Your task to perform on an android device: Clear the shopping cart on walmart. Search for macbook on walmart, select the first entry, add it to the cart, then select checkout. Image 0: 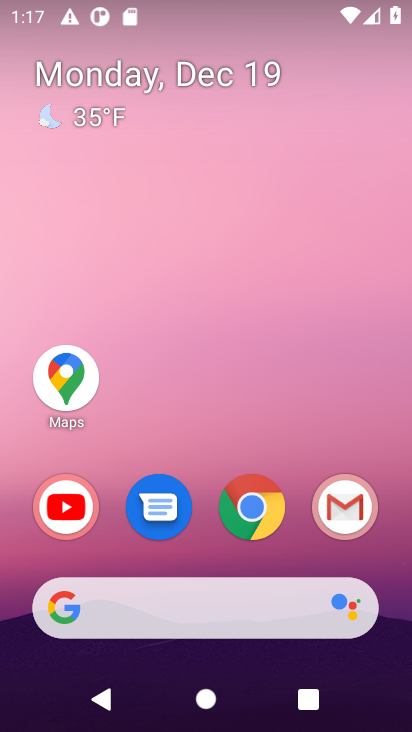
Step 0: click (242, 507)
Your task to perform on an android device: Clear the shopping cart on walmart. Search for macbook on walmart, select the first entry, add it to the cart, then select checkout. Image 1: 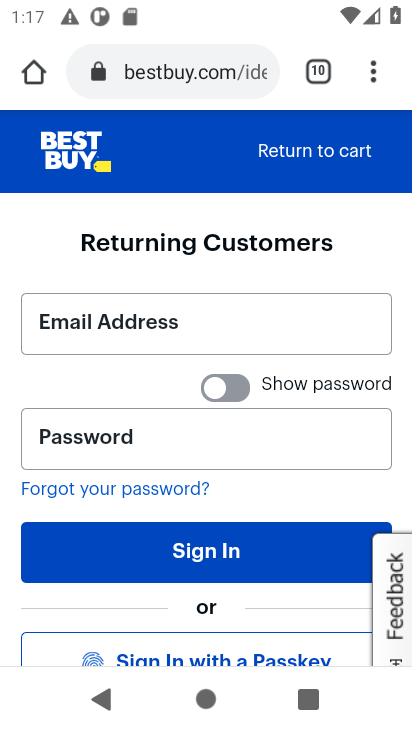
Step 1: click (172, 76)
Your task to perform on an android device: Clear the shopping cart on walmart. Search for macbook on walmart, select the first entry, add it to the cart, then select checkout. Image 2: 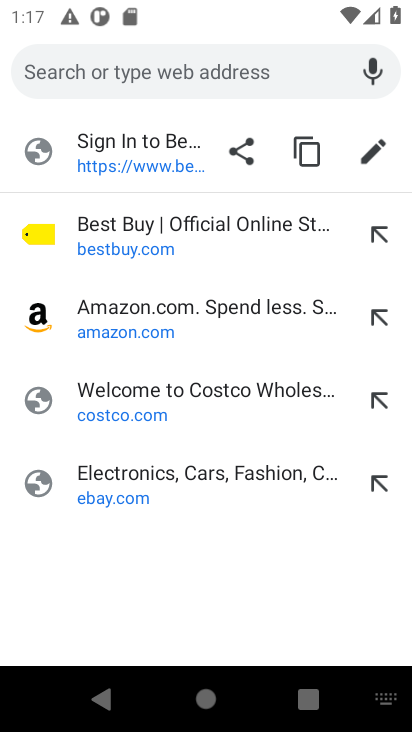
Step 2: type "walmart.com"
Your task to perform on an android device: Clear the shopping cart on walmart. Search for macbook on walmart, select the first entry, add it to the cart, then select checkout. Image 3: 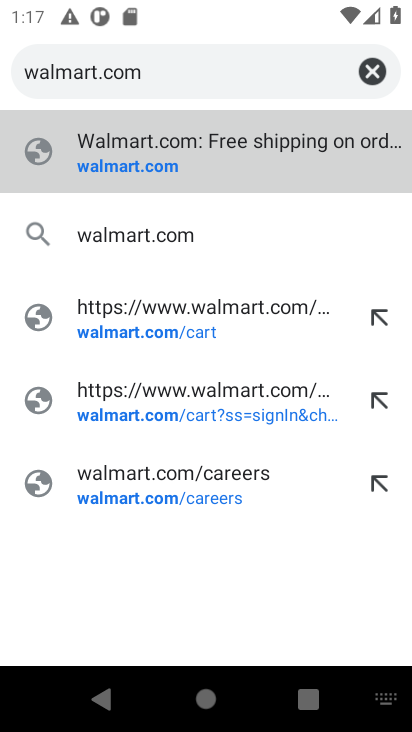
Step 3: click (103, 174)
Your task to perform on an android device: Clear the shopping cart on walmart. Search for macbook on walmart, select the first entry, add it to the cart, then select checkout. Image 4: 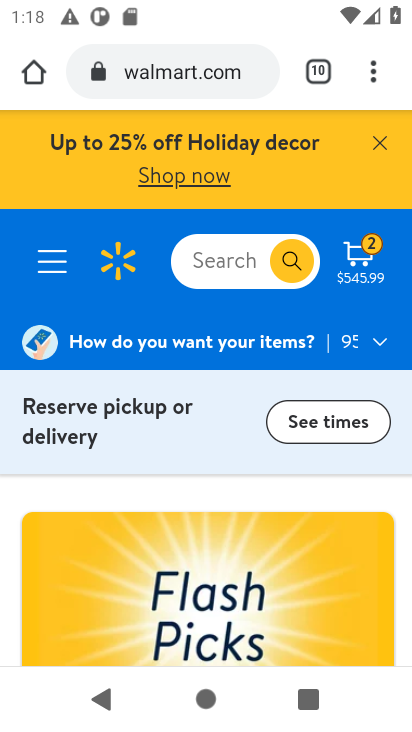
Step 4: click (360, 257)
Your task to perform on an android device: Clear the shopping cart on walmart. Search for macbook on walmart, select the first entry, add it to the cart, then select checkout. Image 5: 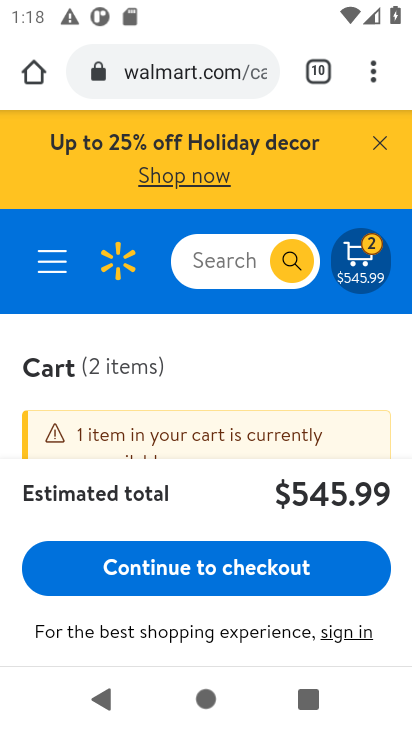
Step 5: drag from (224, 477) to (226, 185)
Your task to perform on an android device: Clear the shopping cart on walmart. Search for macbook on walmart, select the first entry, add it to the cart, then select checkout. Image 6: 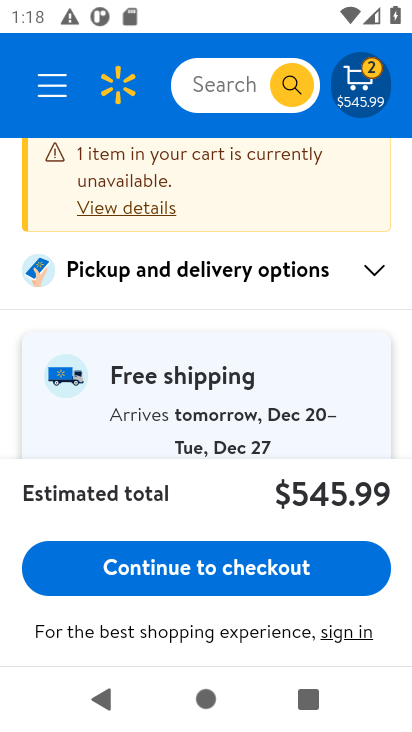
Step 6: drag from (193, 329) to (200, 145)
Your task to perform on an android device: Clear the shopping cart on walmart. Search for macbook on walmart, select the first entry, add it to the cart, then select checkout. Image 7: 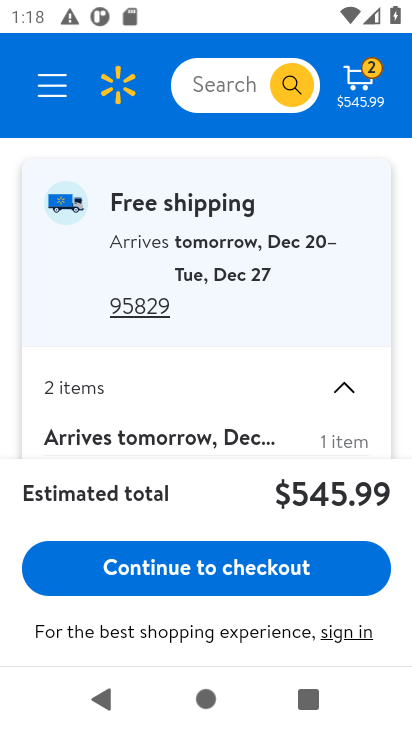
Step 7: drag from (175, 390) to (184, 106)
Your task to perform on an android device: Clear the shopping cart on walmart. Search for macbook on walmart, select the first entry, add it to the cart, then select checkout. Image 8: 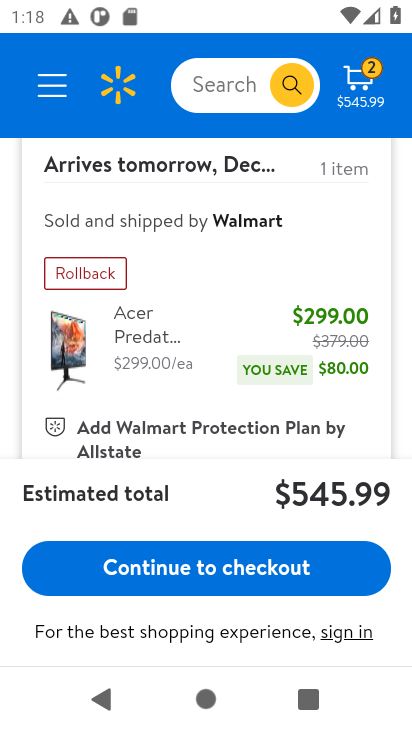
Step 8: drag from (111, 347) to (128, 83)
Your task to perform on an android device: Clear the shopping cart on walmart. Search for macbook on walmart, select the first entry, add it to the cart, then select checkout. Image 9: 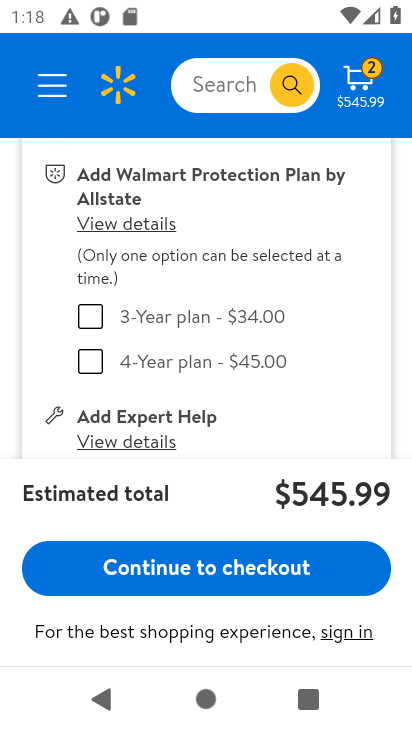
Step 9: drag from (104, 397) to (129, 56)
Your task to perform on an android device: Clear the shopping cart on walmart. Search for macbook on walmart, select the first entry, add it to the cart, then select checkout. Image 10: 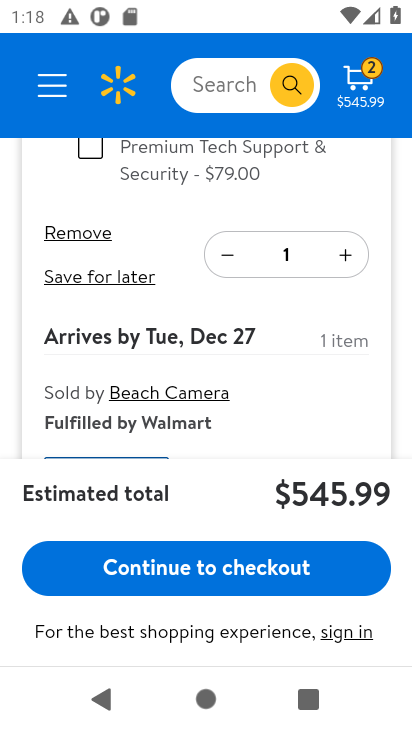
Step 10: click (86, 227)
Your task to perform on an android device: Clear the shopping cart on walmart. Search for macbook on walmart, select the first entry, add it to the cart, then select checkout. Image 11: 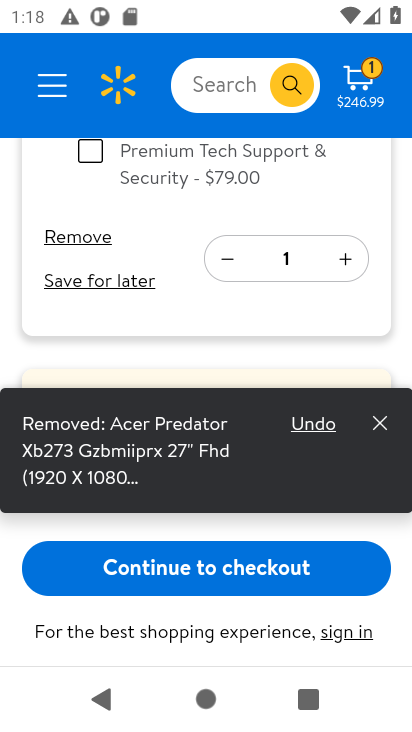
Step 11: click (82, 239)
Your task to perform on an android device: Clear the shopping cart on walmart. Search for macbook on walmart, select the first entry, add it to the cart, then select checkout. Image 12: 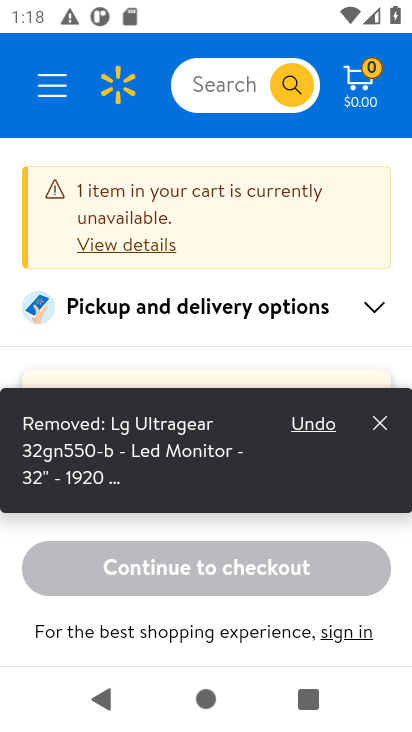
Step 12: click (385, 424)
Your task to perform on an android device: Clear the shopping cart on walmart. Search for macbook on walmart, select the first entry, add it to the cart, then select checkout. Image 13: 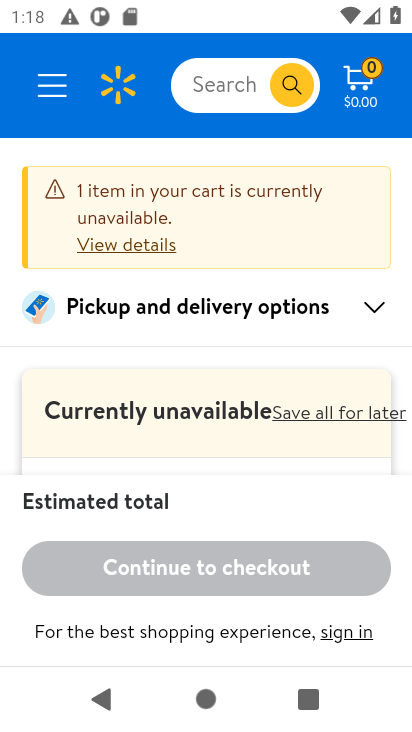
Step 13: drag from (155, 430) to (147, 251)
Your task to perform on an android device: Clear the shopping cart on walmart. Search for macbook on walmart, select the first entry, add it to the cart, then select checkout. Image 14: 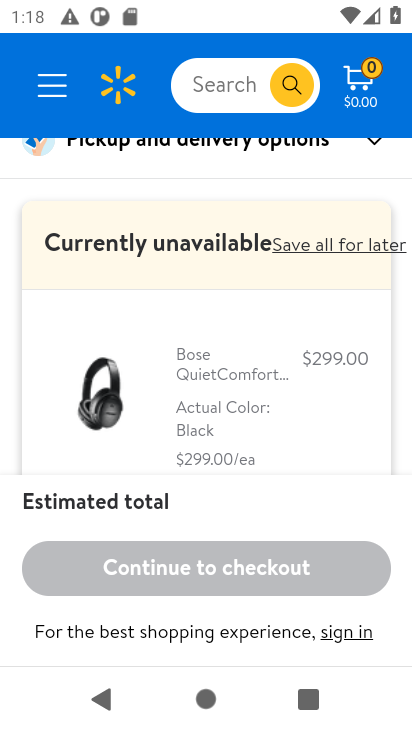
Step 14: drag from (129, 361) to (140, 190)
Your task to perform on an android device: Clear the shopping cart on walmart. Search for macbook on walmart, select the first entry, add it to the cart, then select checkout. Image 15: 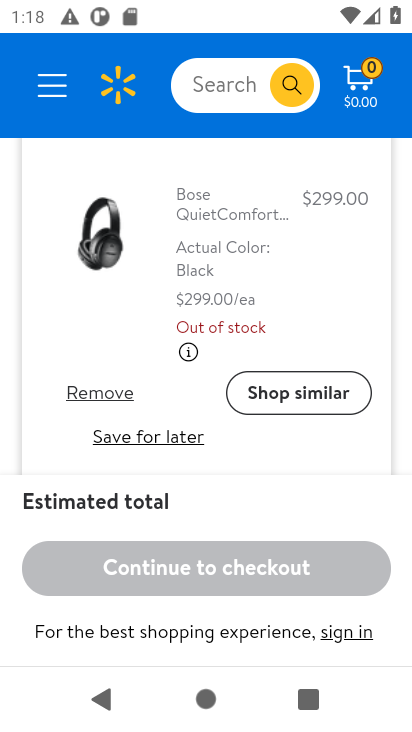
Step 15: click (101, 388)
Your task to perform on an android device: Clear the shopping cart on walmart. Search for macbook on walmart, select the first entry, add it to the cart, then select checkout. Image 16: 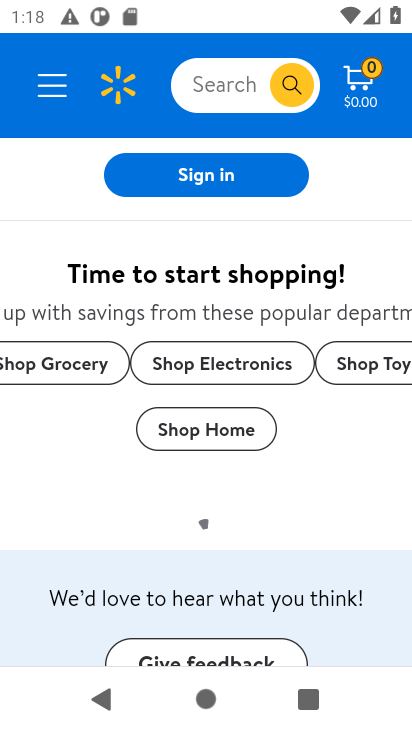
Step 16: drag from (153, 281) to (150, 455)
Your task to perform on an android device: Clear the shopping cart on walmart. Search for macbook on walmart, select the first entry, add it to the cart, then select checkout. Image 17: 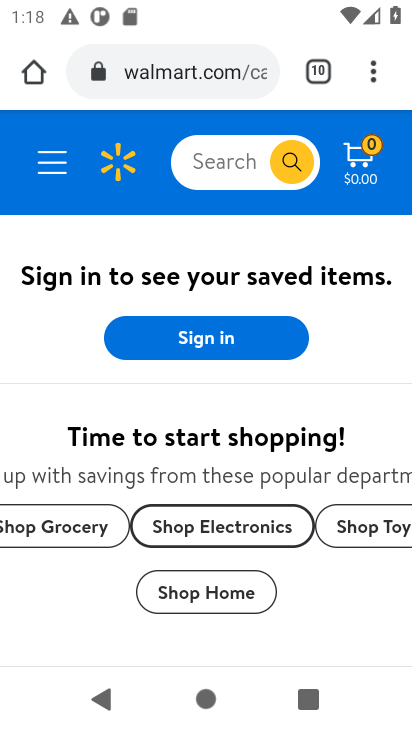
Step 17: drag from (160, 240) to (113, 477)
Your task to perform on an android device: Clear the shopping cart on walmart. Search for macbook on walmart, select the first entry, add it to the cart, then select checkout. Image 18: 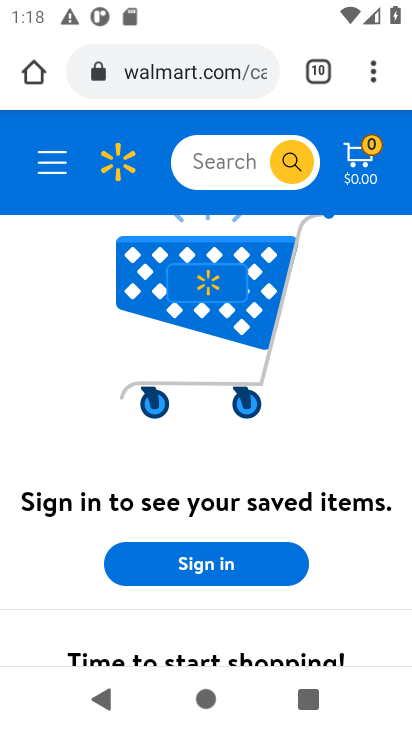
Step 18: click (207, 162)
Your task to perform on an android device: Clear the shopping cart on walmart. Search for macbook on walmart, select the first entry, add it to the cart, then select checkout. Image 19: 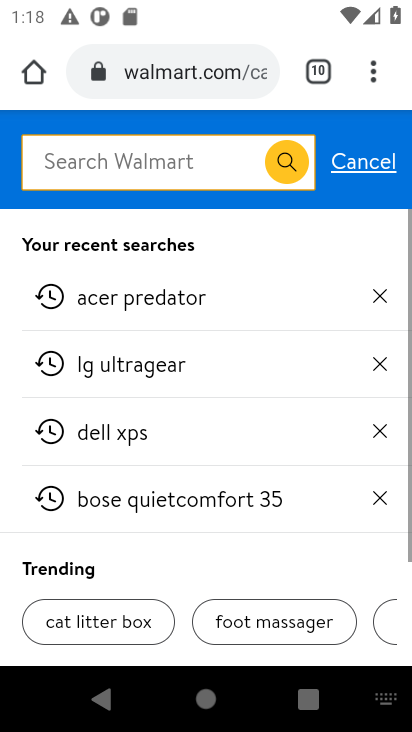
Step 19: type "macbook"
Your task to perform on an android device: Clear the shopping cart on walmart. Search for macbook on walmart, select the first entry, add it to the cart, then select checkout. Image 20: 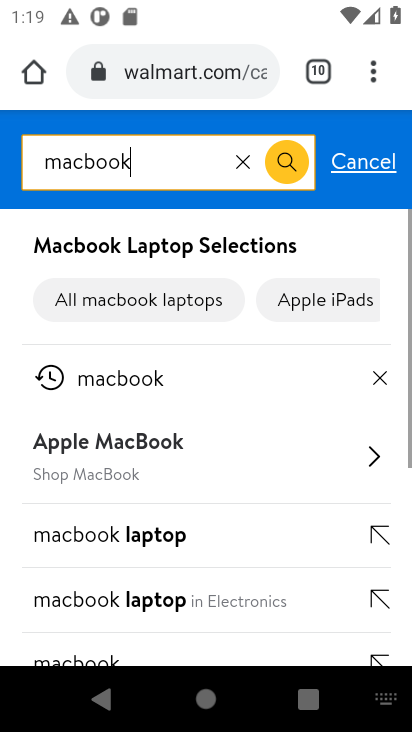
Step 20: click (281, 161)
Your task to perform on an android device: Clear the shopping cart on walmart. Search for macbook on walmart, select the first entry, add it to the cart, then select checkout. Image 21: 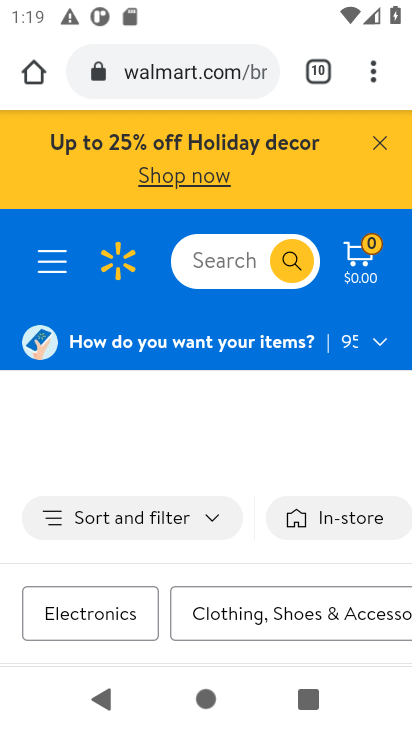
Step 21: drag from (195, 471) to (202, 233)
Your task to perform on an android device: Clear the shopping cart on walmart. Search for macbook on walmart, select the first entry, add it to the cart, then select checkout. Image 22: 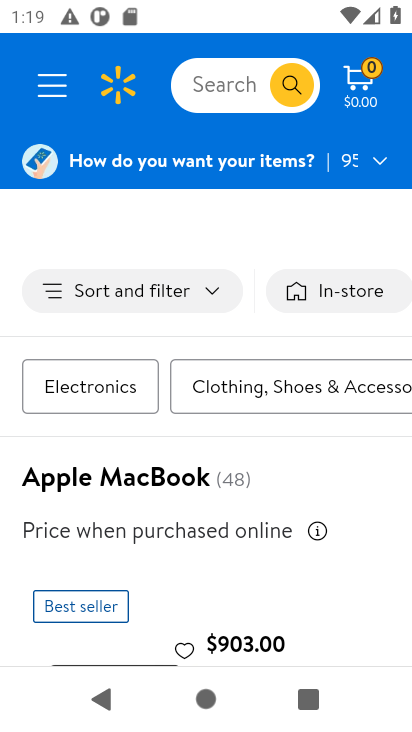
Step 22: drag from (148, 494) to (161, 191)
Your task to perform on an android device: Clear the shopping cart on walmart. Search for macbook on walmart, select the first entry, add it to the cart, then select checkout. Image 23: 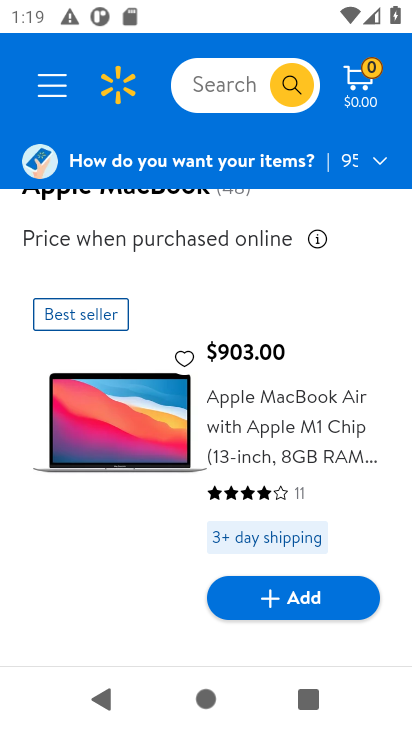
Step 23: drag from (276, 387) to (249, 601)
Your task to perform on an android device: Clear the shopping cart on walmart. Search for macbook on walmart, select the first entry, add it to the cart, then select checkout. Image 24: 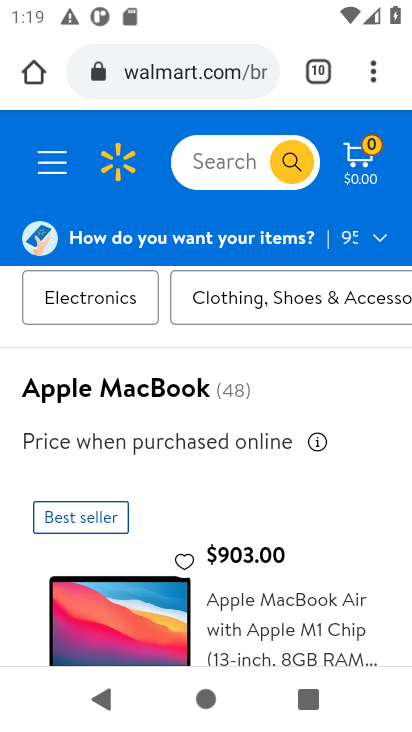
Step 24: drag from (249, 592) to (263, 368)
Your task to perform on an android device: Clear the shopping cart on walmart. Search for macbook on walmart, select the first entry, add it to the cart, then select checkout. Image 25: 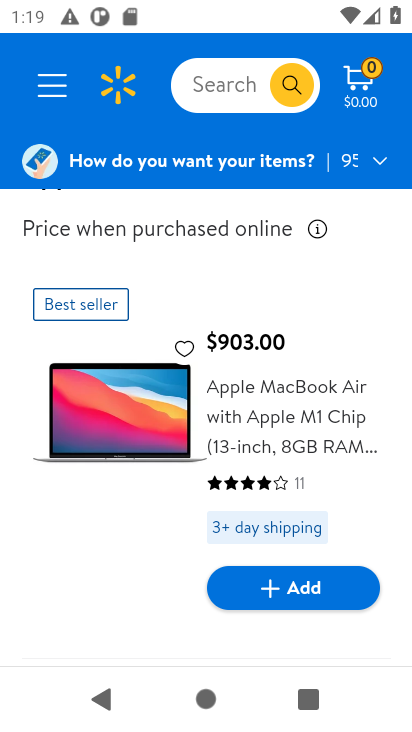
Step 25: click (291, 588)
Your task to perform on an android device: Clear the shopping cart on walmart. Search for macbook on walmart, select the first entry, add it to the cart, then select checkout. Image 26: 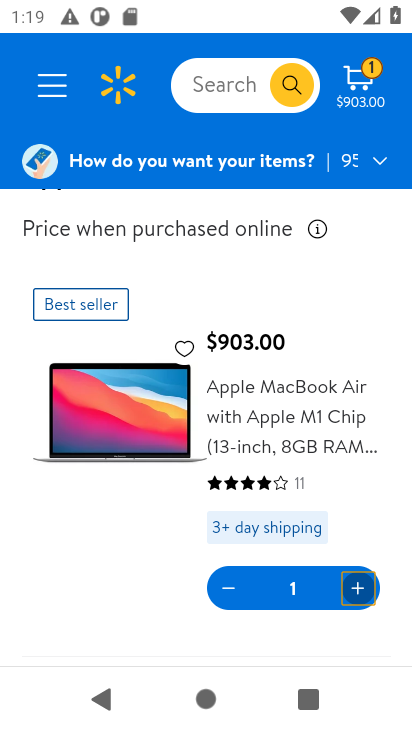
Step 26: click (365, 70)
Your task to perform on an android device: Clear the shopping cart on walmart. Search for macbook on walmart, select the first entry, add it to the cart, then select checkout. Image 27: 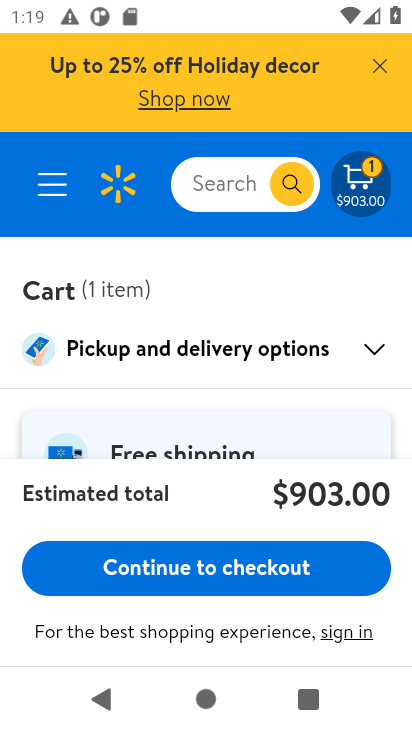
Step 27: click (231, 564)
Your task to perform on an android device: Clear the shopping cart on walmart. Search for macbook on walmart, select the first entry, add it to the cart, then select checkout. Image 28: 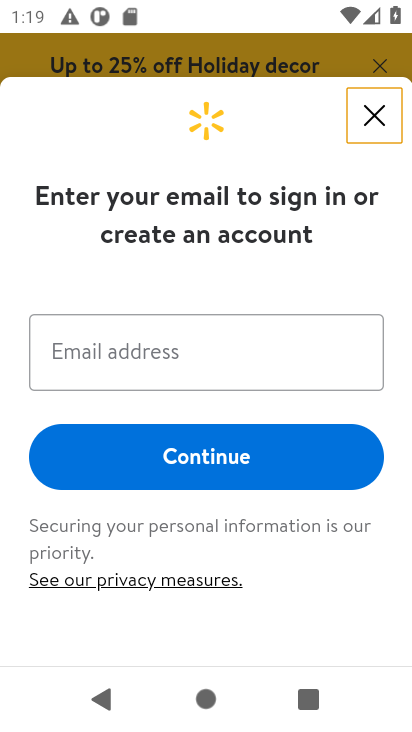
Step 28: task complete